Your task to perform on an android device: Go to eBay Image 0: 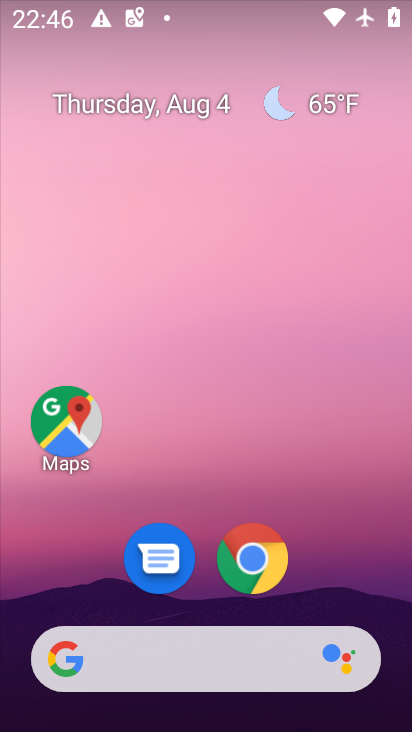
Step 0: drag from (304, 531) to (268, 94)
Your task to perform on an android device: Go to eBay Image 1: 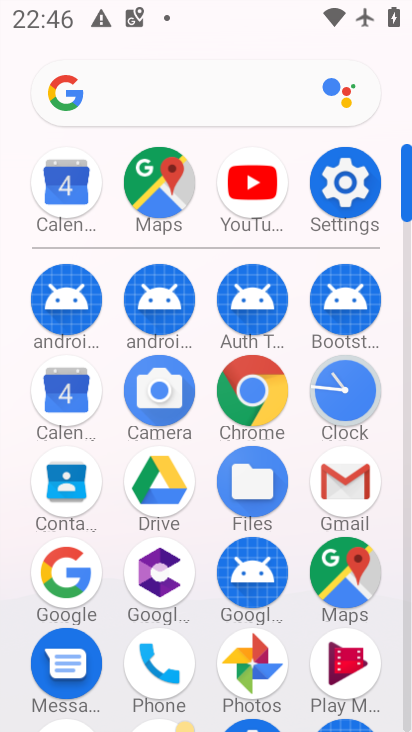
Step 1: click (244, 392)
Your task to perform on an android device: Go to eBay Image 2: 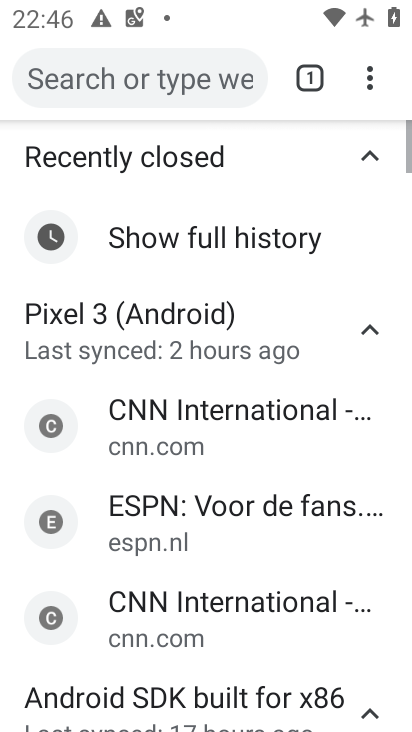
Step 2: click (187, 90)
Your task to perform on an android device: Go to eBay Image 3: 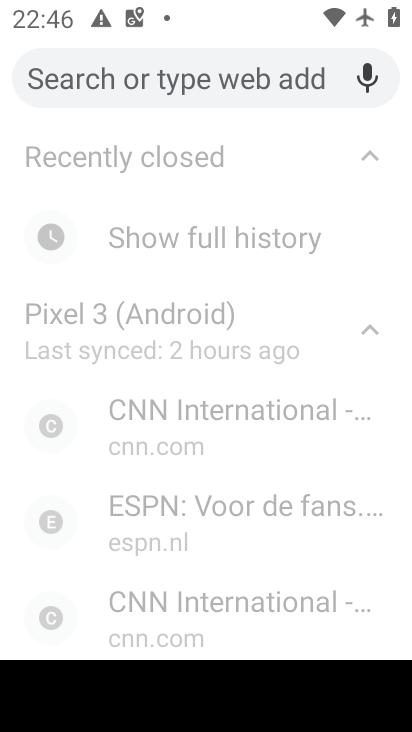
Step 3: type "eb"
Your task to perform on an android device: Go to eBay Image 4: 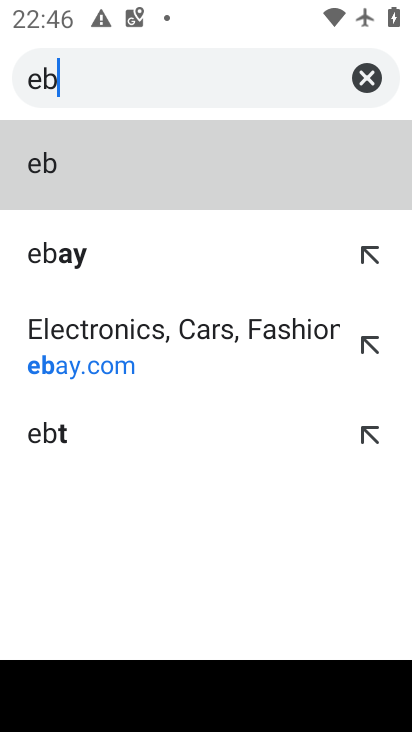
Step 4: click (98, 363)
Your task to perform on an android device: Go to eBay Image 5: 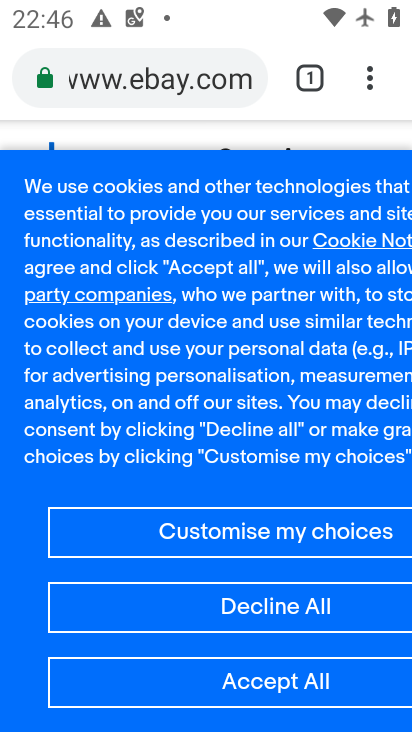
Step 5: task complete